Your task to perform on an android device: Open sound settings Image 0: 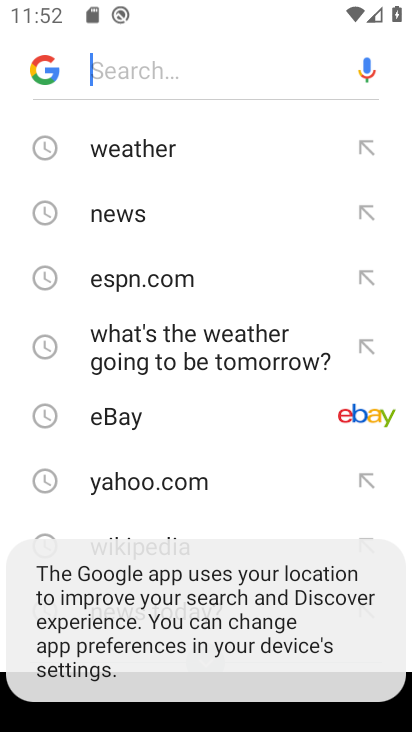
Step 0: press back button
Your task to perform on an android device: Open sound settings Image 1: 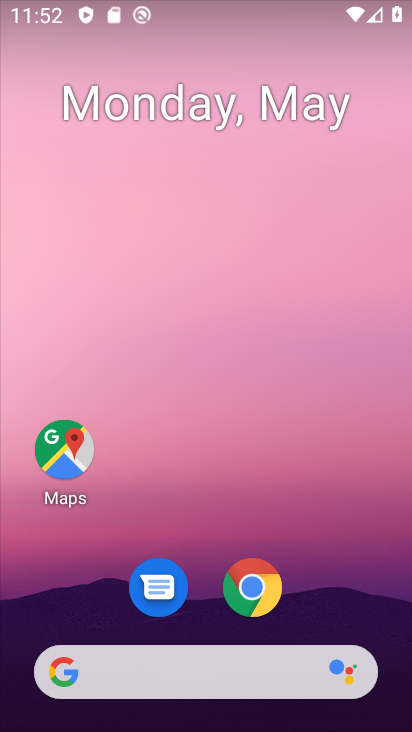
Step 1: drag from (369, 569) to (226, 192)
Your task to perform on an android device: Open sound settings Image 2: 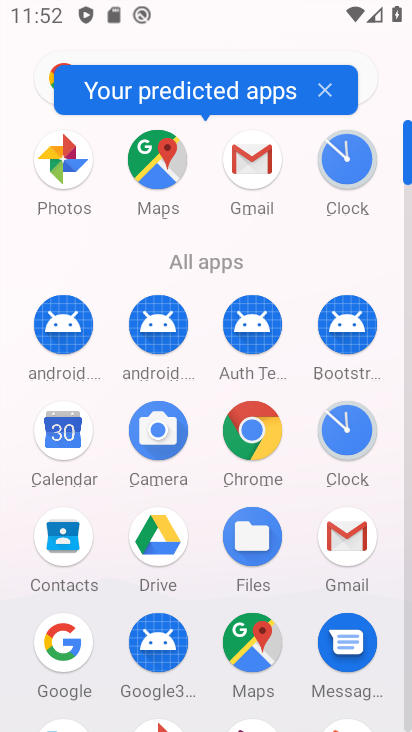
Step 2: drag from (408, 179) to (374, 217)
Your task to perform on an android device: Open sound settings Image 3: 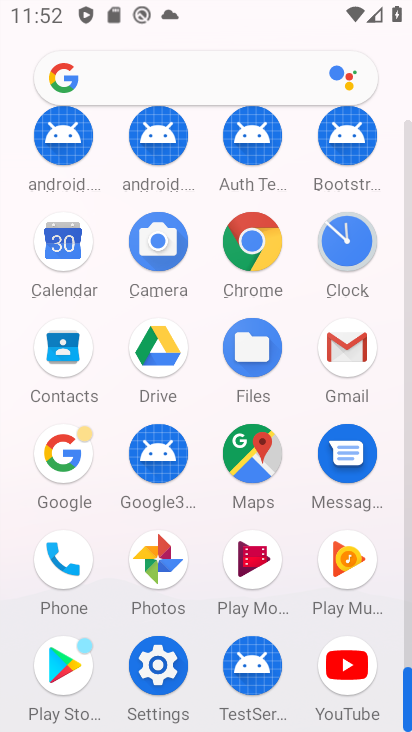
Step 3: click (160, 647)
Your task to perform on an android device: Open sound settings Image 4: 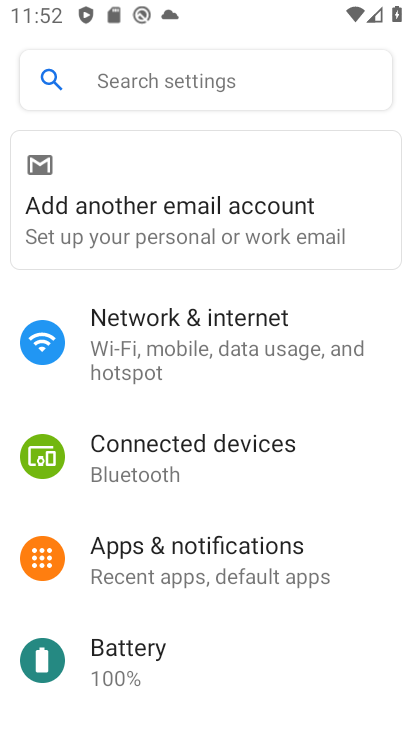
Step 4: drag from (215, 670) to (233, 216)
Your task to perform on an android device: Open sound settings Image 5: 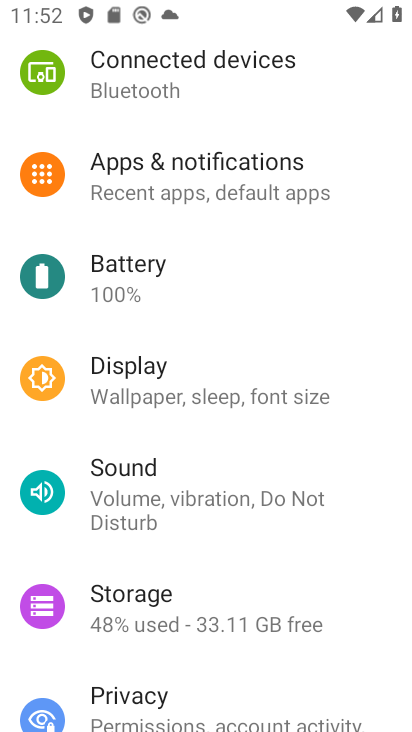
Step 5: click (188, 505)
Your task to perform on an android device: Open sound settings Image 6: 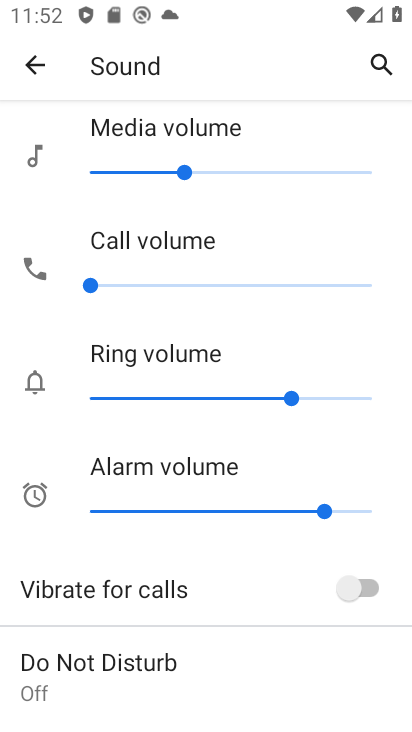
Step 6: task complete